Your task to perform on an android device: add a contact Image 0: 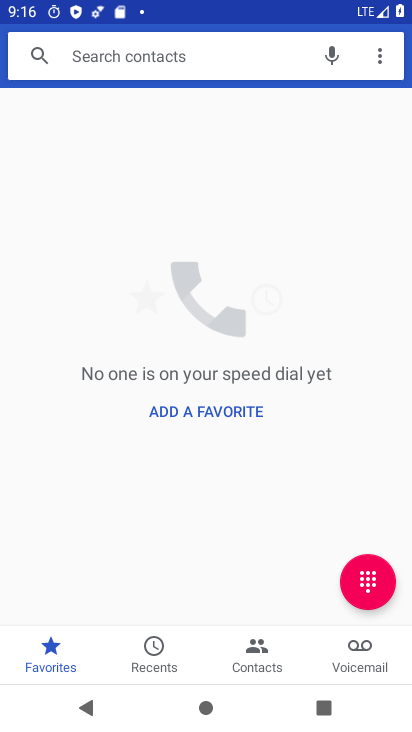
Step 0: press home button
Your task to perform on an android device: add a contact Image 1: 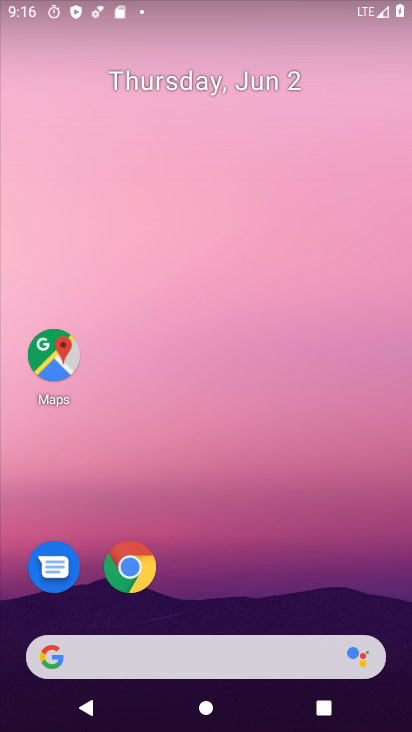
Step 1: drag from (353, 586) to (343, 139)
Your task to perform on an android device: add a contact Image 2: 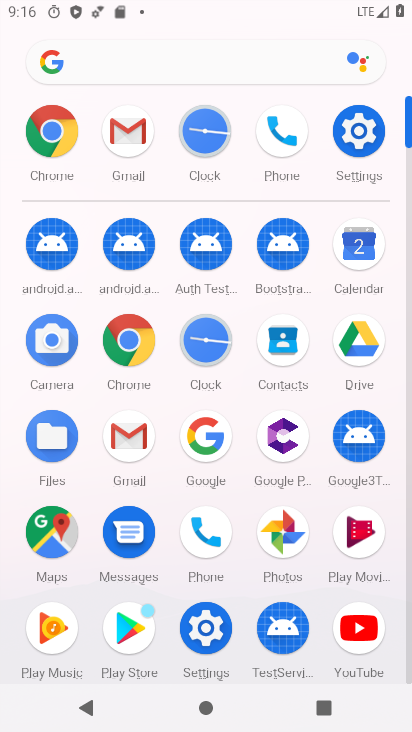
Step 2: click (373, 123)
Your task to perform on an android device: add a contact Image 3: 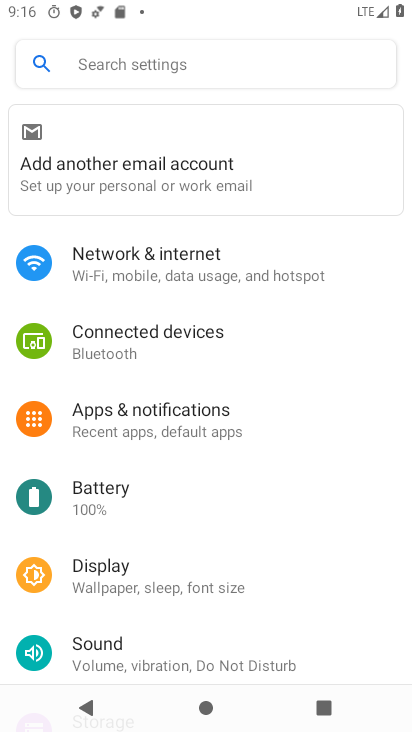
Step 3: press home button
Your task to perform on an android device: add a contact Image 4: 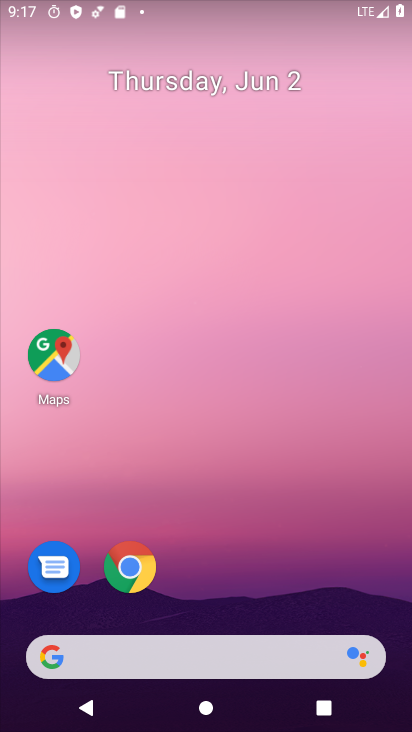
Step 4: drag from (404, 572) to (359, 181)
Your task to perform on an android device: add a contact Image 5: 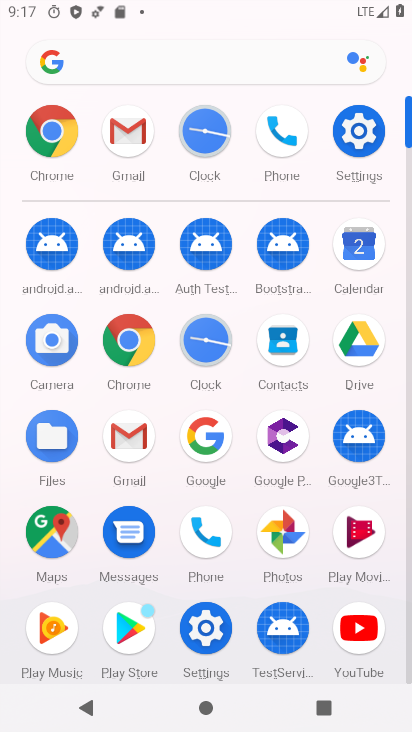
Step 5: click (294, 353)
Your task to perform on an android device: add a contact Image 6: 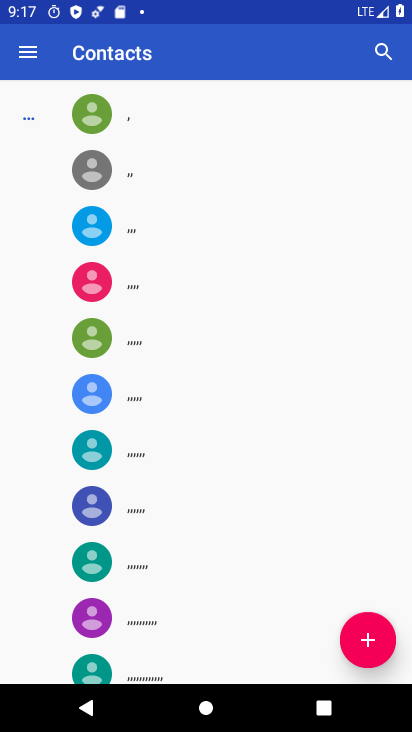
Step 6: click (364, 642)
Your task to perform on an android device: add a contact Image 7: 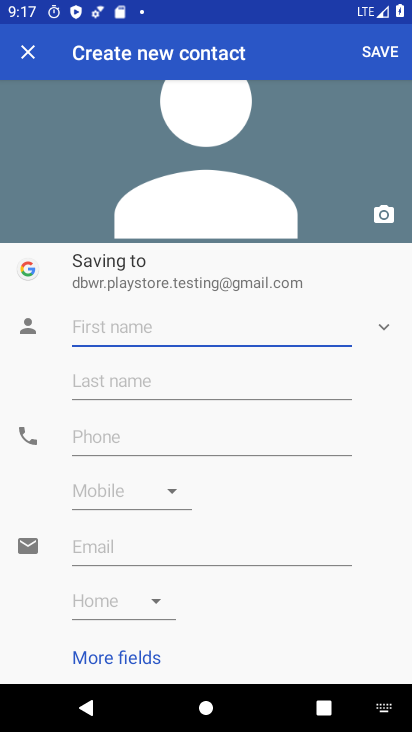
Step 7: type "ksjd"
Your task to perform on an android device: add a contact Image 8: 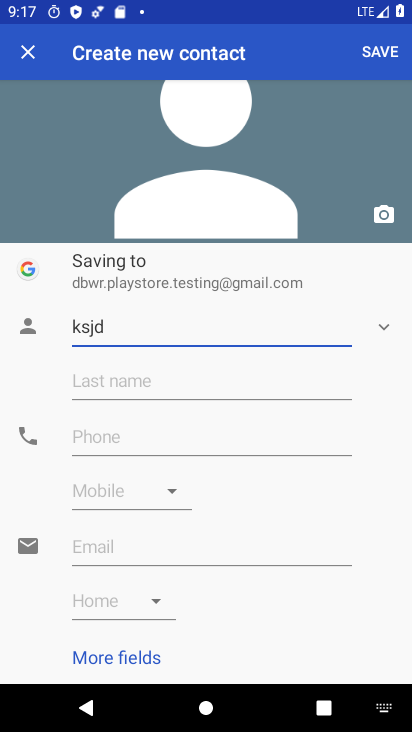
Step 8: click (102, 437)
Your task to perform on an android device: add a contact Image 9: 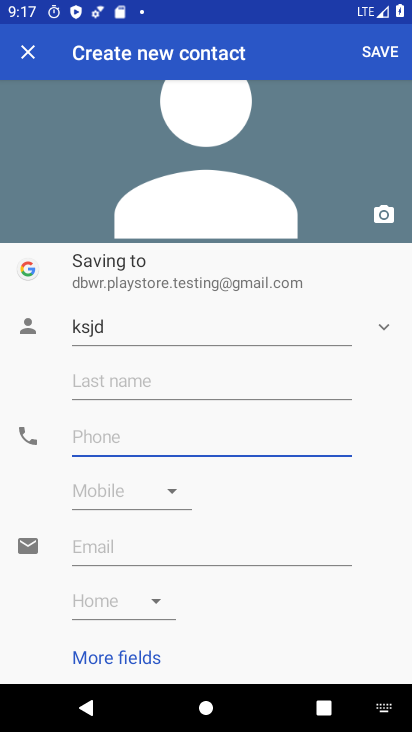
Step 9: type "9293843983"
Your task to perform on an android device: add a contact Image 10: 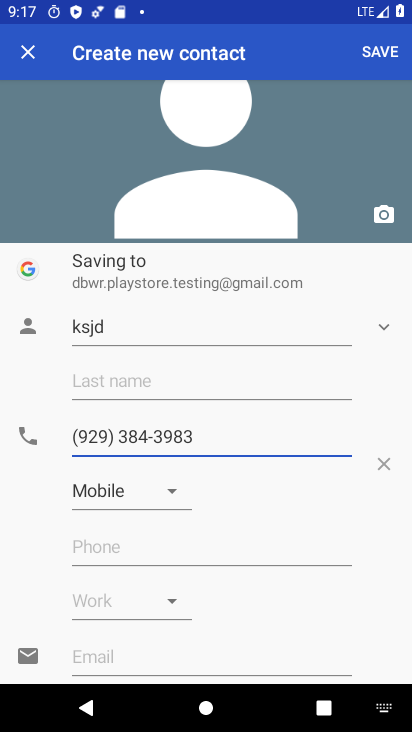
Step 10: click (359, 43)
Your task to perform on an android device: add a contact Image 11: 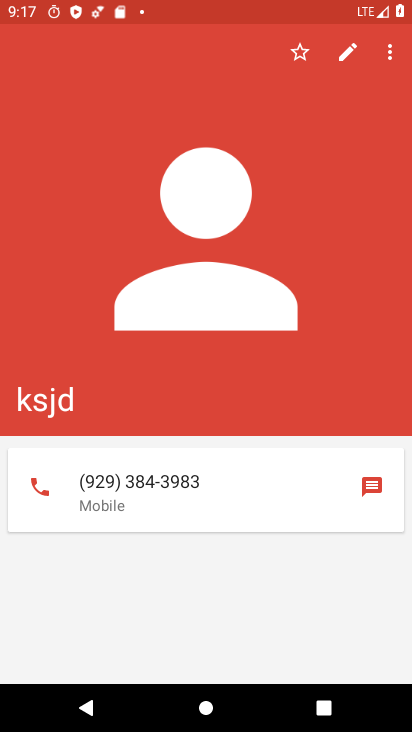
Step 11: task complete